Your task to perform on an android device: What is the news today? Image 0: 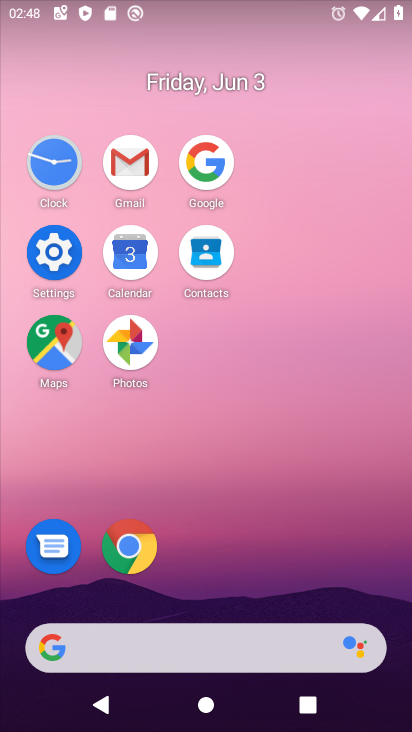
Step 0: click (216, 175)
Your task to perform on an android device: What is the news today? Image 1: 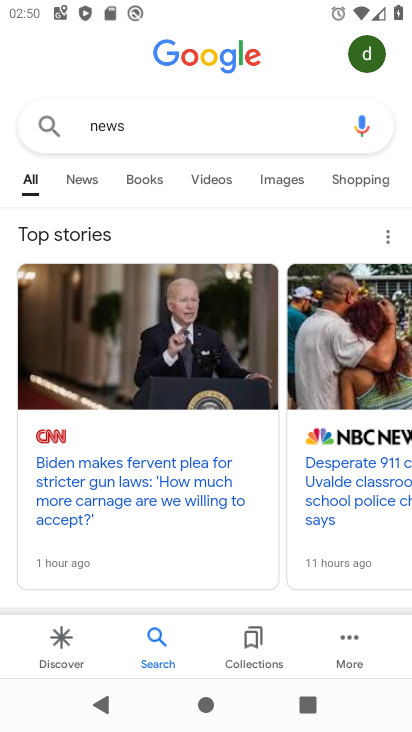
Step 1: task complete